Your task to perform on an android device: turn on translation in the chrome app Image 0: 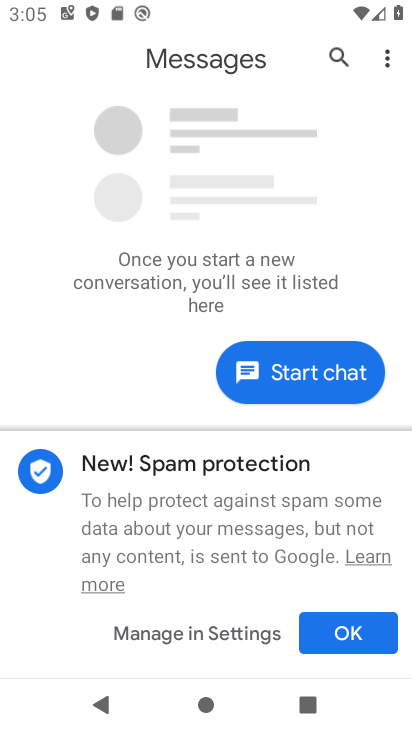
Step 0: press home button
Your task to perform on an android device: turn on translation in the chrome app Image 1: 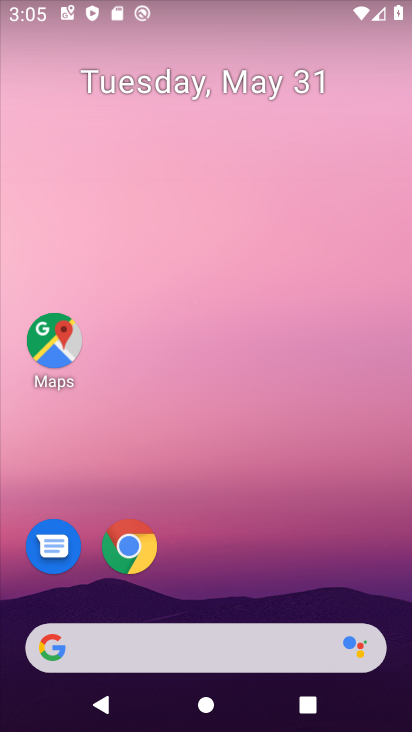
Step 1: click (135, 543)
Your task to perform on an android device: turn on translation in the chrome app Image 2: 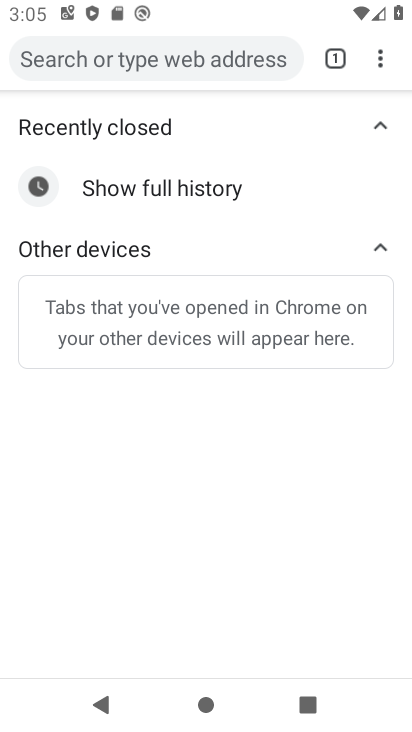
Step 2: click (375, 50)
Your task to perform on an android device: turn on translation in the chrome app Image 3: 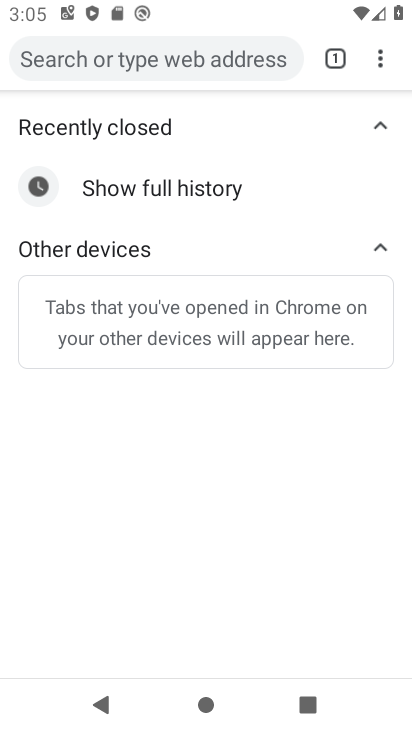
Step 3: click (375, 50)
Your task to perform on an android device: turn on translation in the chrome app Image 4: 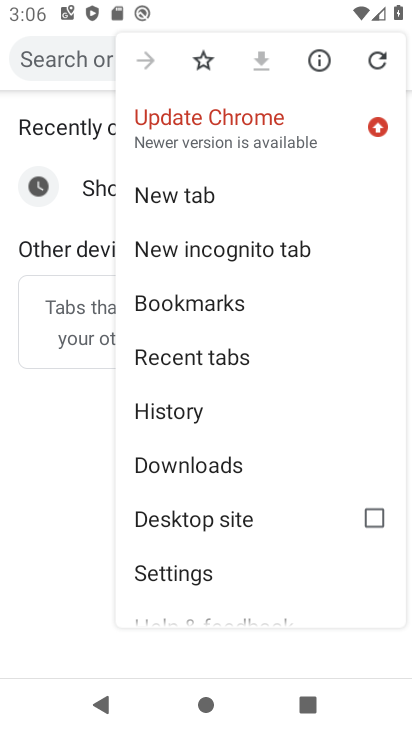
Step 4: click (202, 565)
Your task to perform on an android device: turn on translation in the chrome app Image 5: 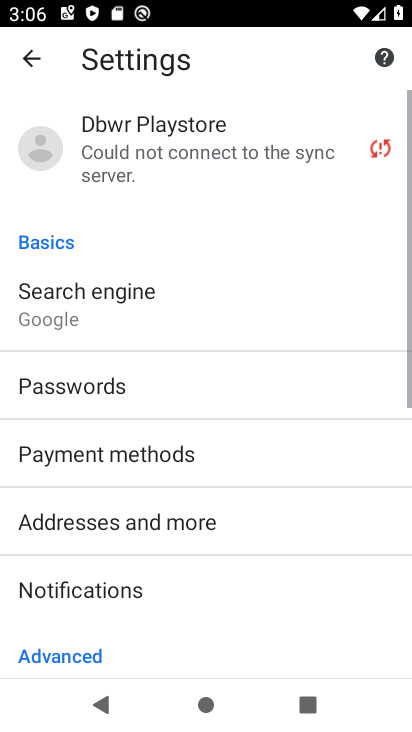
Step 5: drag from (261, 563) to (290, 0)
Your task to perform on an android device: turn on translation in the chrome app Image 6: 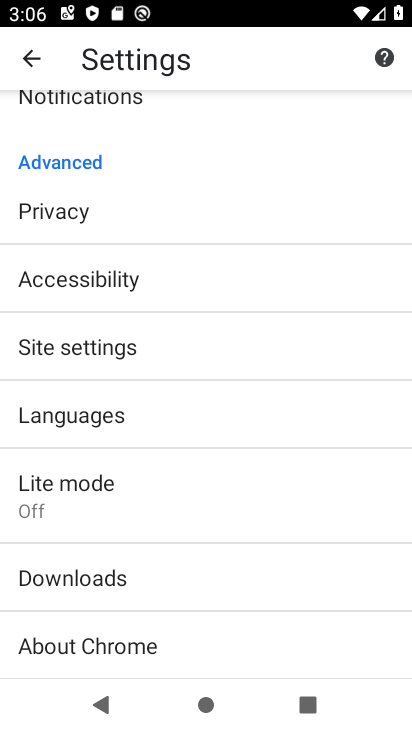
Step 6: click (234, 428)
Your task to perform on an android device: turn on translation in the chrome app Image 7: 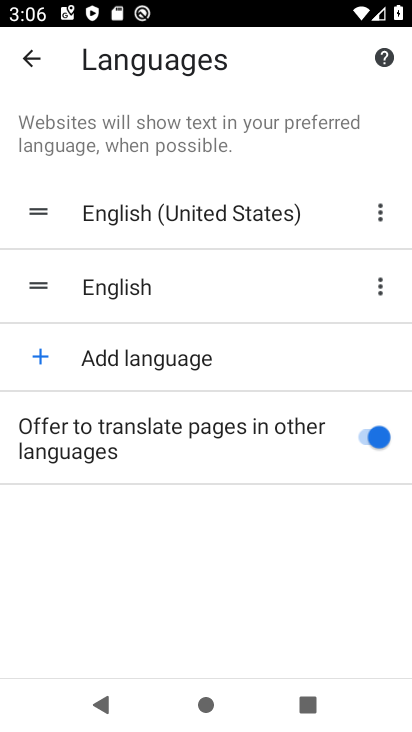
Step 7: task complete